Your task to perform on an android device: Open the calendar app, open the side menu, and click the "Day" option Image 0: 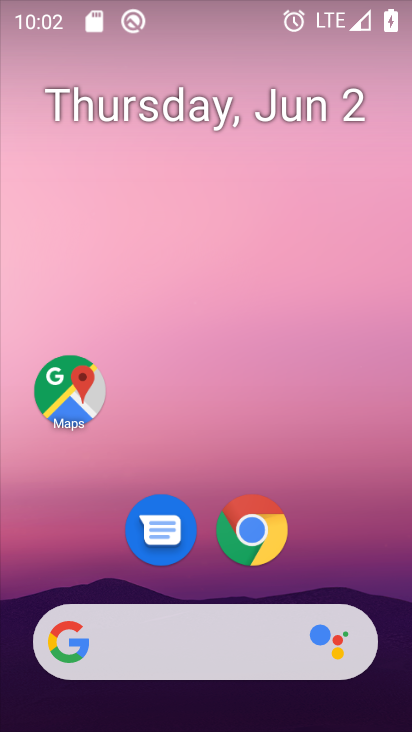
Step 0: drag from (227, 631) to (203, 248)
Your task to perform on an android device: Open the calendar app, open the side menu, and click the "Day" option Image 1: 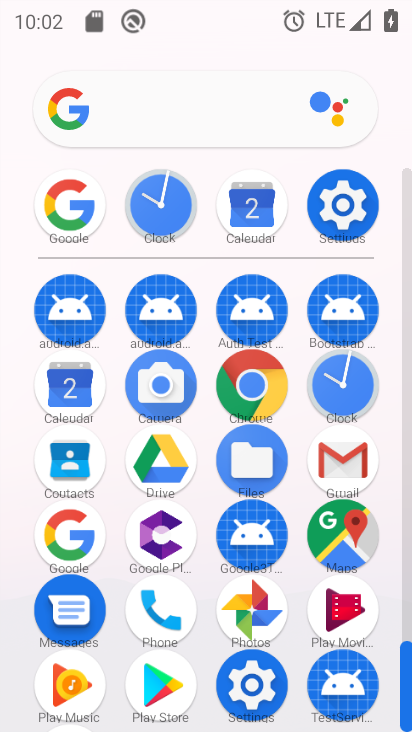
Step 1: click (81, 399)
Your task to perform on an android device: Open the calendar app, open the side menu, and click the "Day" option Image 2: 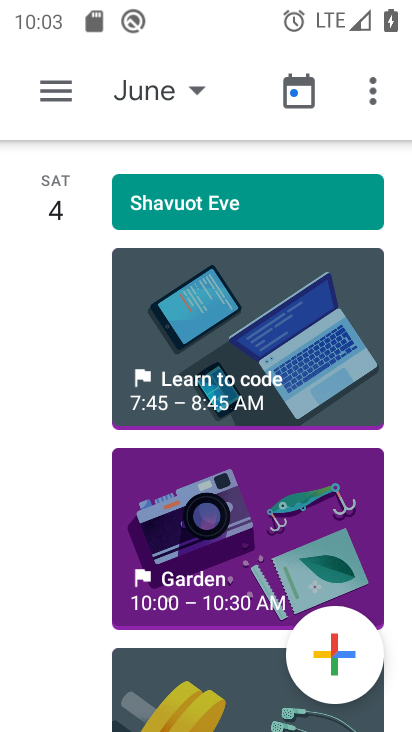
Step 2: click (60, 84)
Your task to perform on an android device: Open the calendar app, open the side menu, and click the "Day" option Image 3: 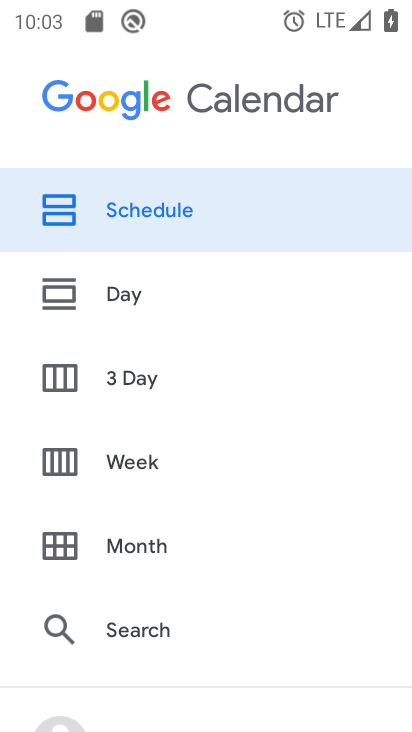
Step 3: click (121, 299)
Your task to perform on an android device: Open the calendar app, open the side menu, and click the "Day" option Image 4: 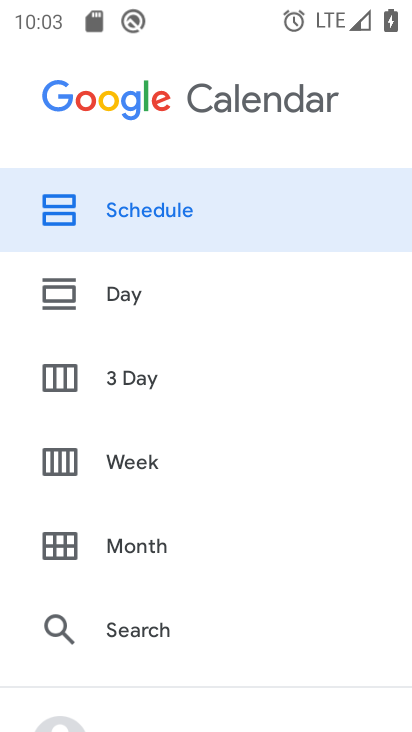
Step 4: click (106, 300)
Your task to perform on an android device: Open the calendar app, open the side menu, and click the "Day" option Image 5: 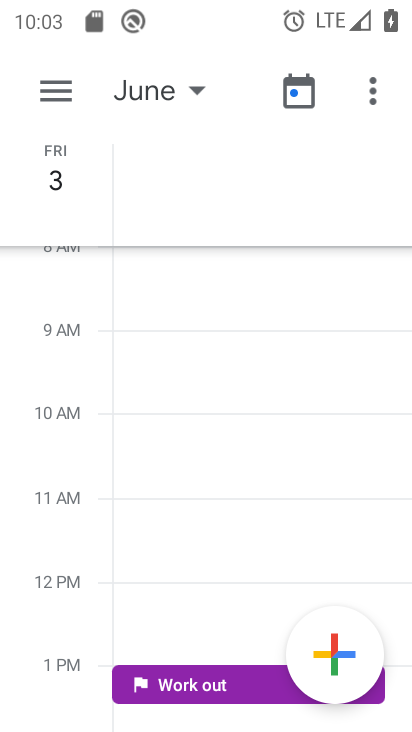
Step 5: task complete